Your task to perform on an android device: Open Google Chrome and click the shortcut for Amazon.com Image 0: 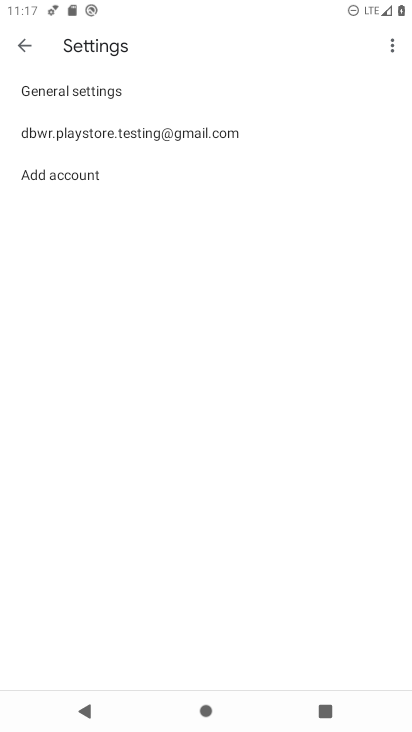
Step 0: press home button
Your task to perform on an android device: Open Google Chrome and click the shortcut for Amazon.com Image 1: 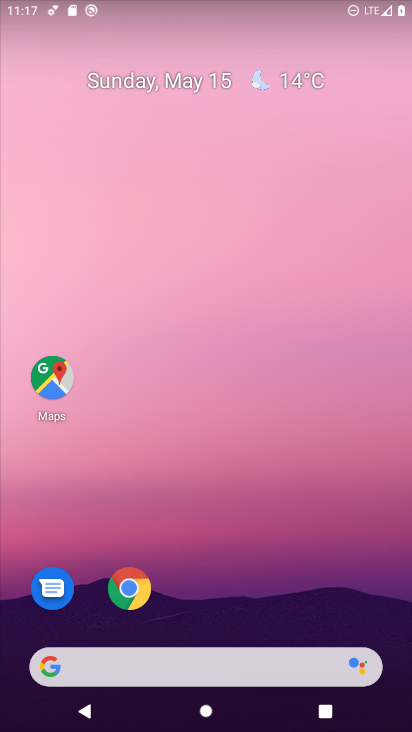
Step 1: click (135, 583)
Your task to perform on an android device: Open Google Chrome and click the shortcut for Amazon.com Image 2: 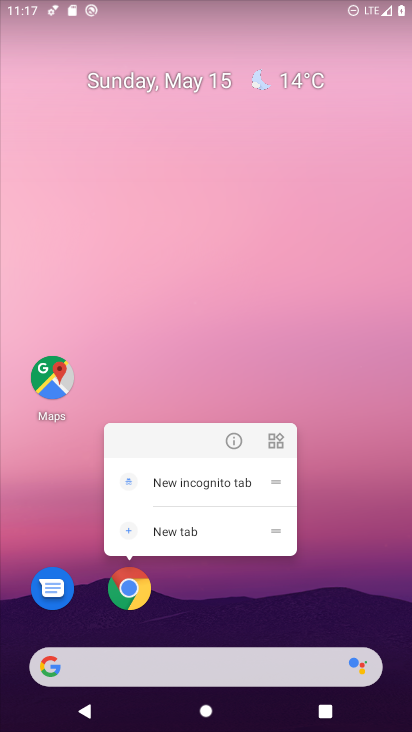
Step 2: click (134, 587)
Your task to perform on an android device: Open Google Chrome and click the shortcut for Amazon.com Image 3: 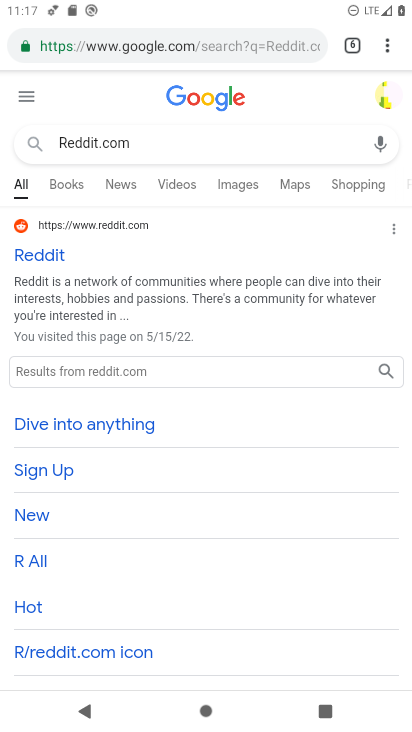
Step 3: click (381, 42)
Your task to perform on an android device: Open Google Chrome and click the shortcut for Amazon.com Image 4: 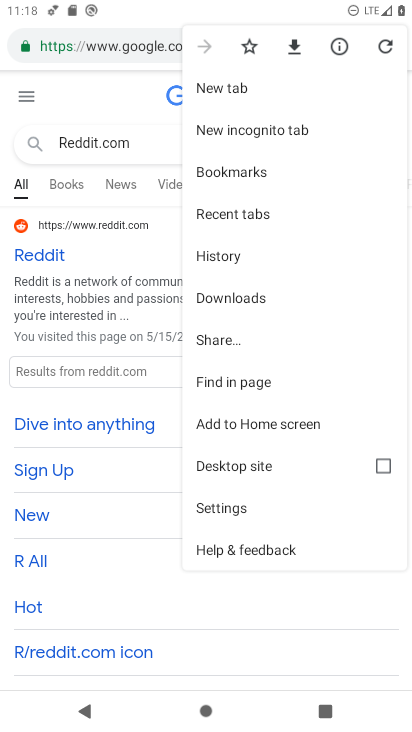
Step 4: click (216, 86)
Your task to perform on an android device: Open Google Chrome and click the shortcut for Amazon.com Image 5: 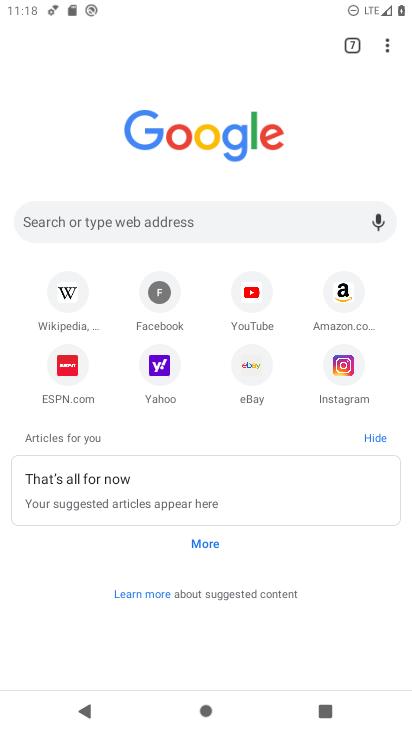
Step 5: click (332, 296)
Your task to perform on an android device: Open Google Chrome and click the shortcut for Amazon.com Image 6: 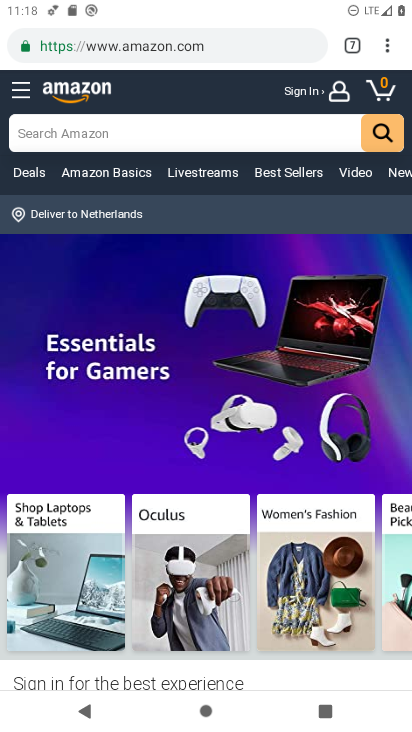
Step 6: task complete